Your task to perform on an android device: turn on improve location accuracy Image 0: 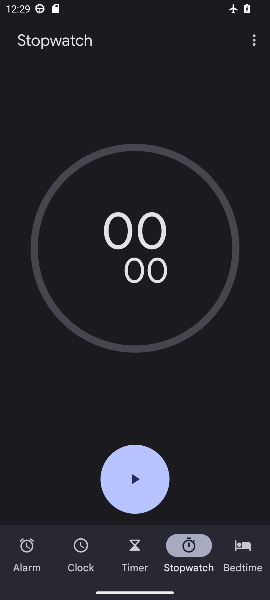
Step 0: press home button
Your task to perform on an android device: turn on improve location accuracy Image 1: 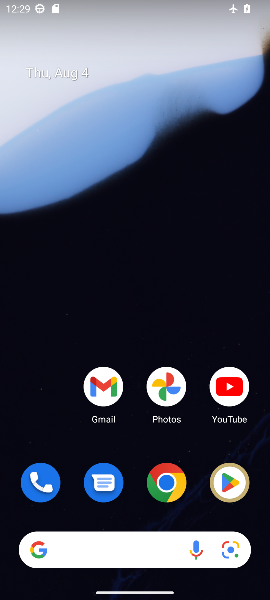
Step 1: drag from (123, 459) to (147, 159)
Your task to perform on an android device: turn on improve location accuracy Image 2: 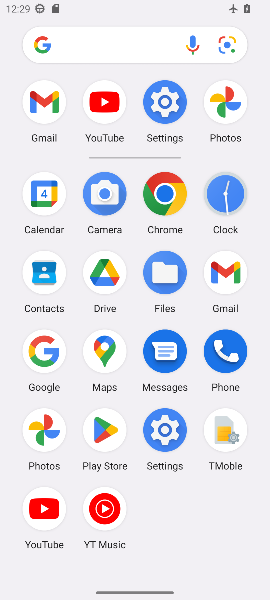
Step 2: click (156, 109)
Your task to perform on an android device: turn on improve location accuracy Image 3: 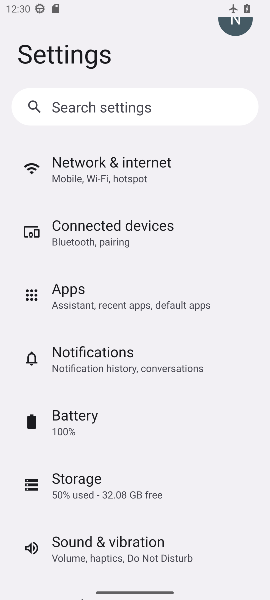
Step 3: drag from (129, 486) to (122, 237)
Your task to perform on an android device: turn on improve location accuracy Image 4: 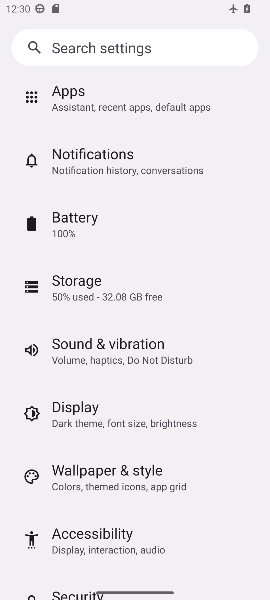
Step 4: drag from (126, 459) to (114, 172)
Your task to perform on an android device: turn on improve location accuracy Image 5: 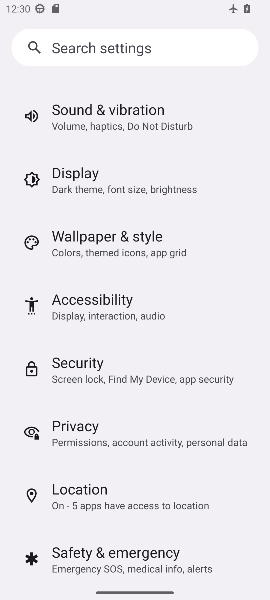
Step 5: click (117, 477)
Your task to perform on an android device: turn on improve location accuracy Image 6: 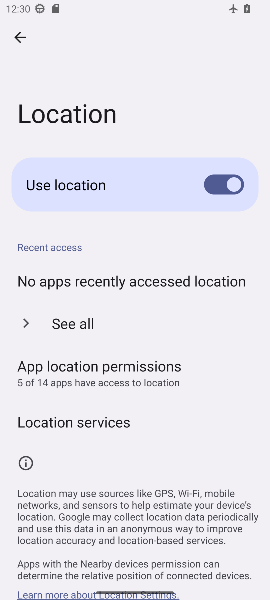
Step 6: drag from (159, 468) to (161, 152)
Your task to perform on an android device: turn on improve location accuracy Image 7: 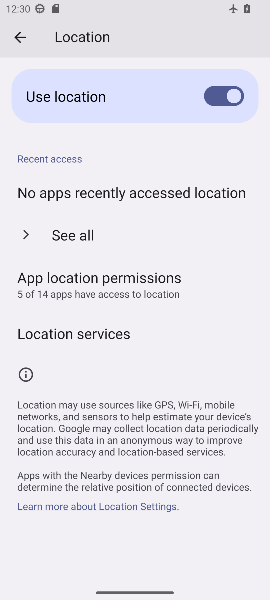
Step 7: drag from (125, 284) to (133, 498)
Your task to perform on an android device: turn on improve location accuracy Image 8: 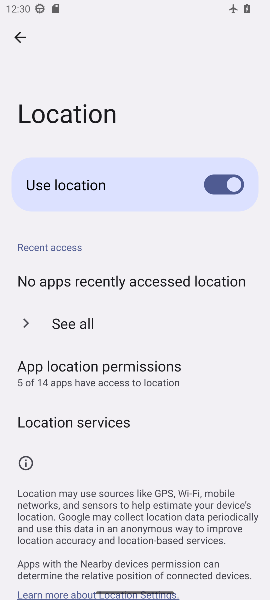
Step 8: click (103, 420)
Your task to perform on an android device: turn on improve location accuracy Image 9: 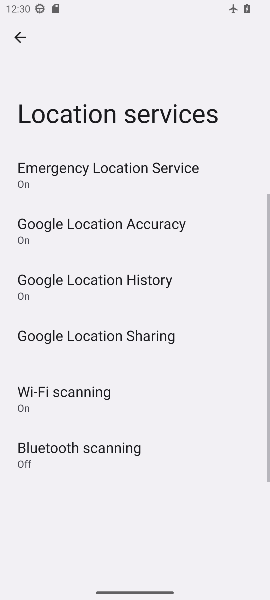
Step 9: click (163, 241)
Your task to perform on an android device: turn on improve location accuracy Image 10: 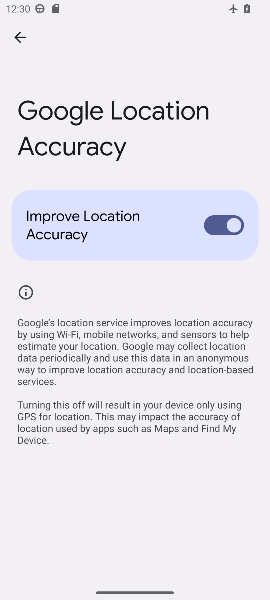
Step 10: task complete